Your task to perform on an android device: Show me recent news Image 0: 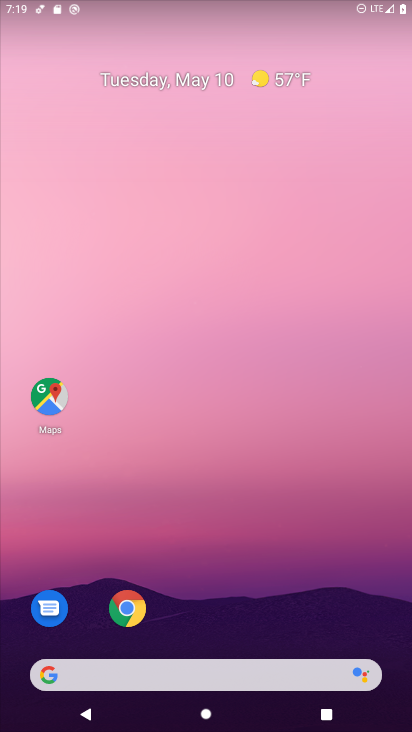
Step 0: drag from (347, 611) to (299, 53)
Your task to perform on an android device: Show me recent news Image 1: 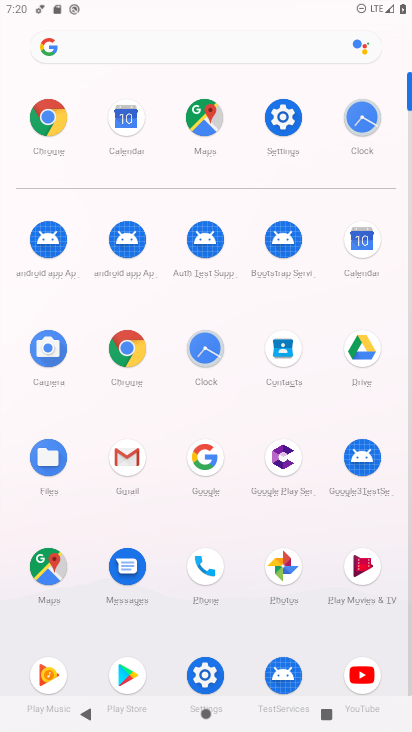
Step 1: click (122, 350)
Your task to perform on an android device: Show me recent news Image 2: 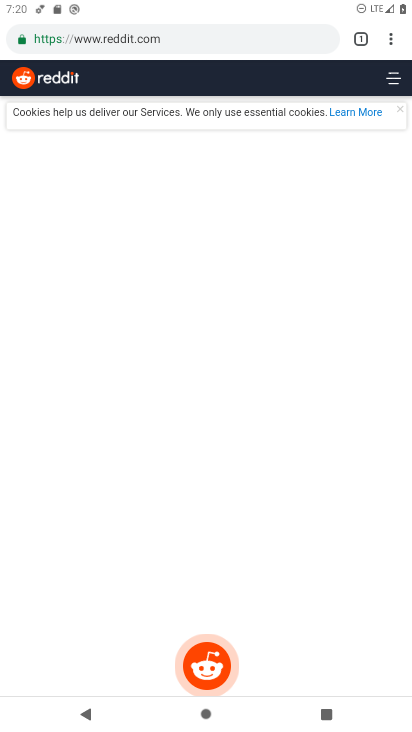
Step 2: press back button
Your task to perform on an android device: Show me recent news Image 3: 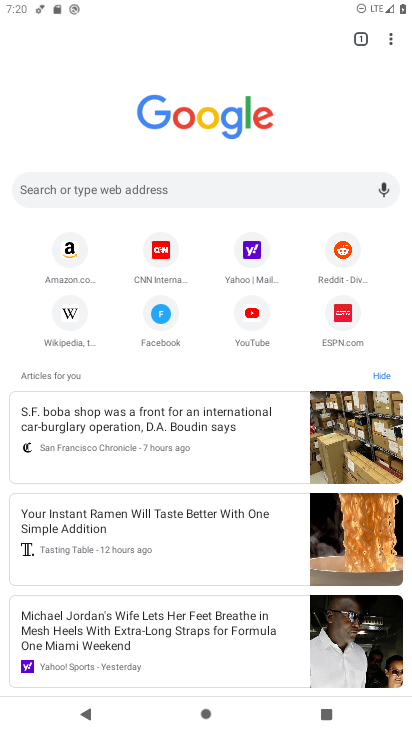
Step 3: click (179, 450)
Your task to perform on an android device: Show me recent news Image 4: 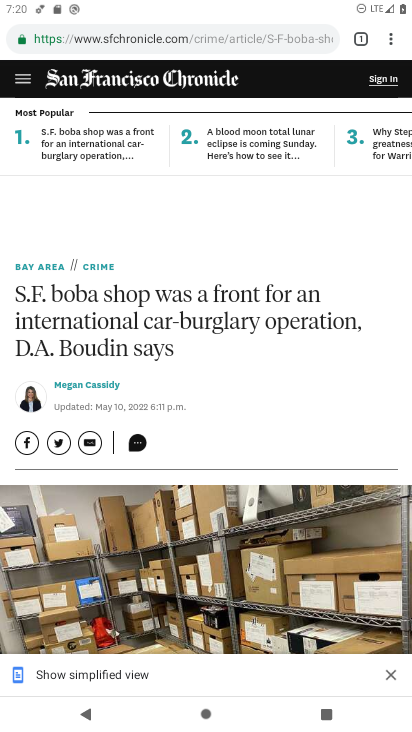
Step 4: task complete